Your task to perform on an android device: Search for hotels in NYC Image 0: 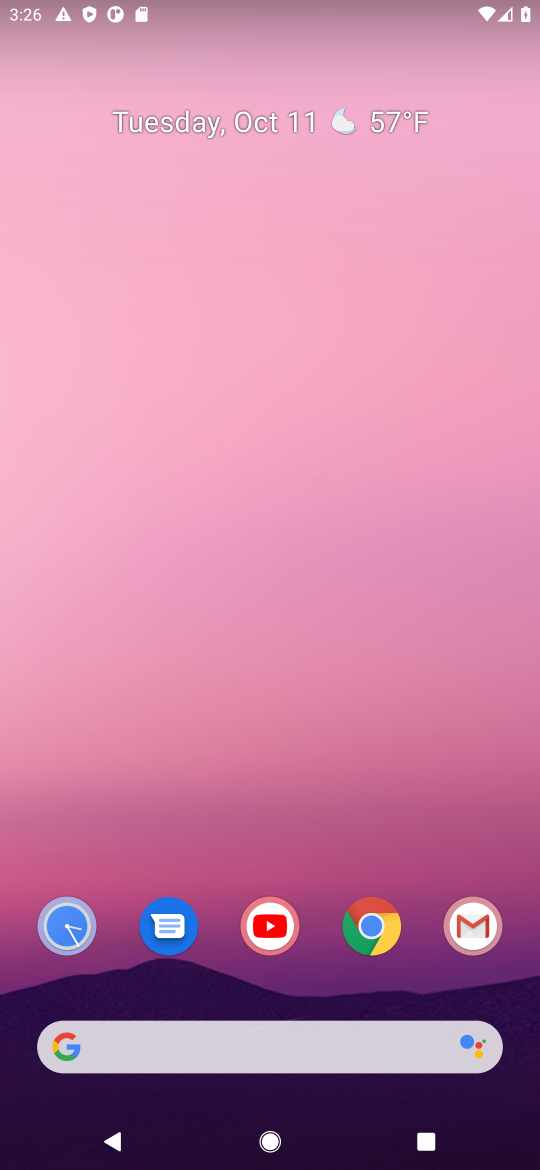
Step 0: click (254, 1029)
Your task to perform on an android device: Search for hotels in NYC Image 1: 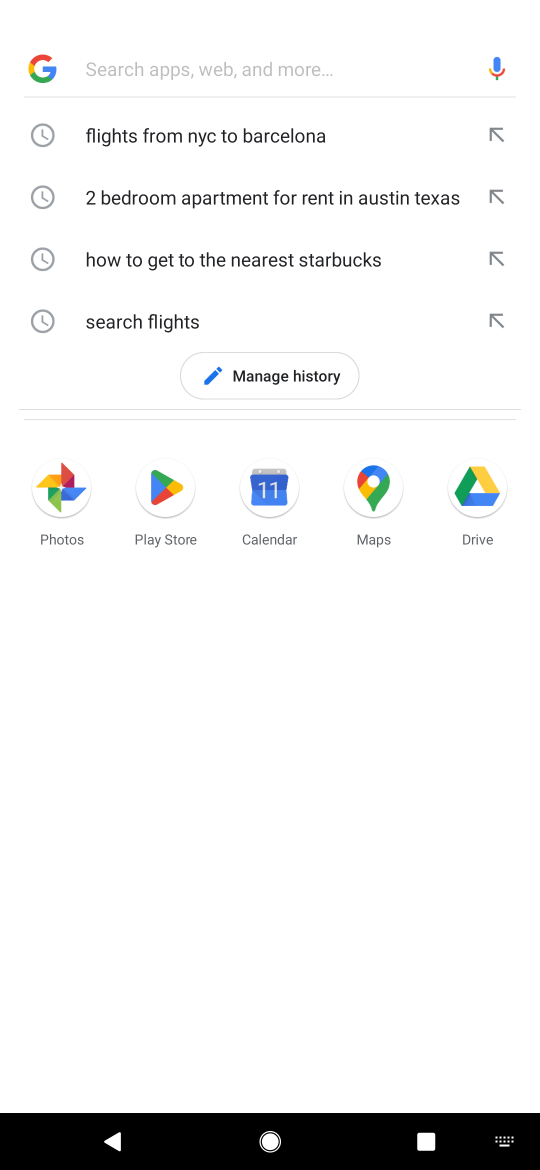
Step 1: type "hotels in NYC"
Your task to perform on an android device: Search for hotels in NYC Image 2: 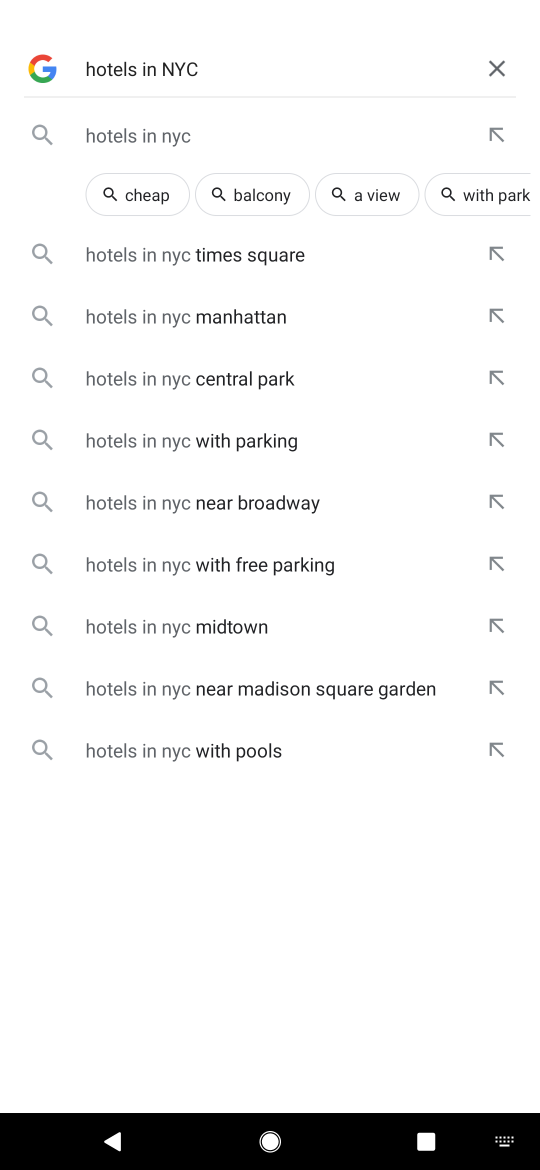
Step 2: type ""
Your task to perform on an android device: Search for hotels in NYC Image 3: 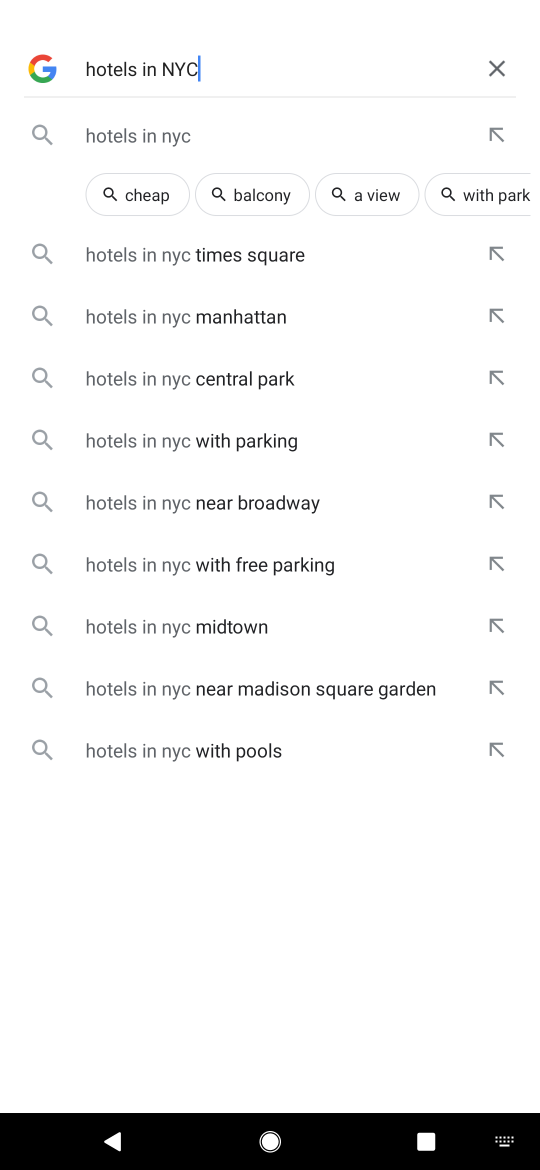
Step 3: click (181, 138)
Your task to perform on an android device: Search for hotels in NYC Image 4: 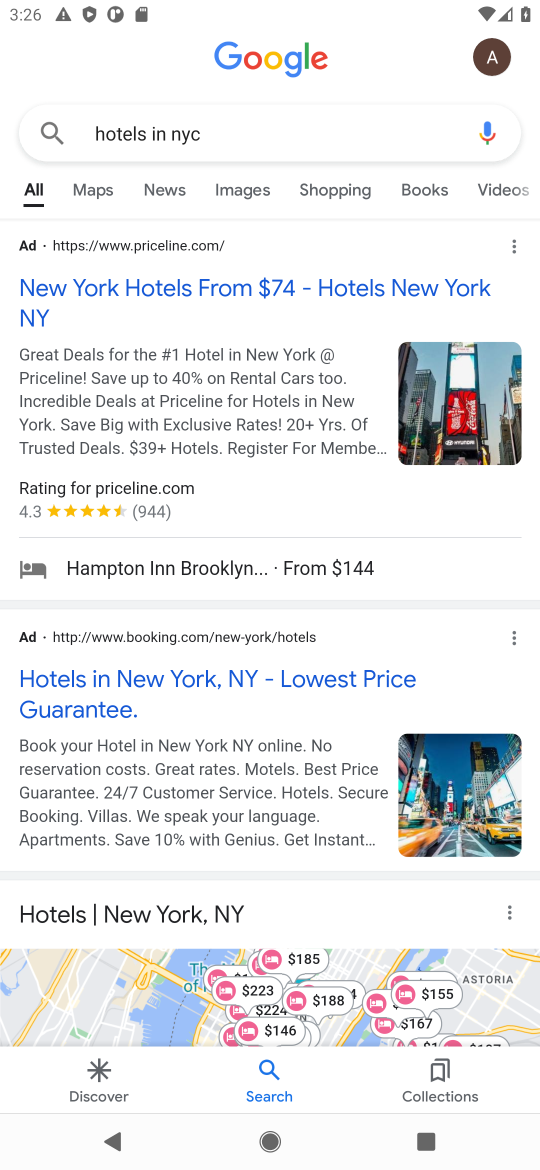
Step 4: drag from (138, 832) to (186, 229)
Your task to perform on an android device: Search for hotels in NYC Image 5: 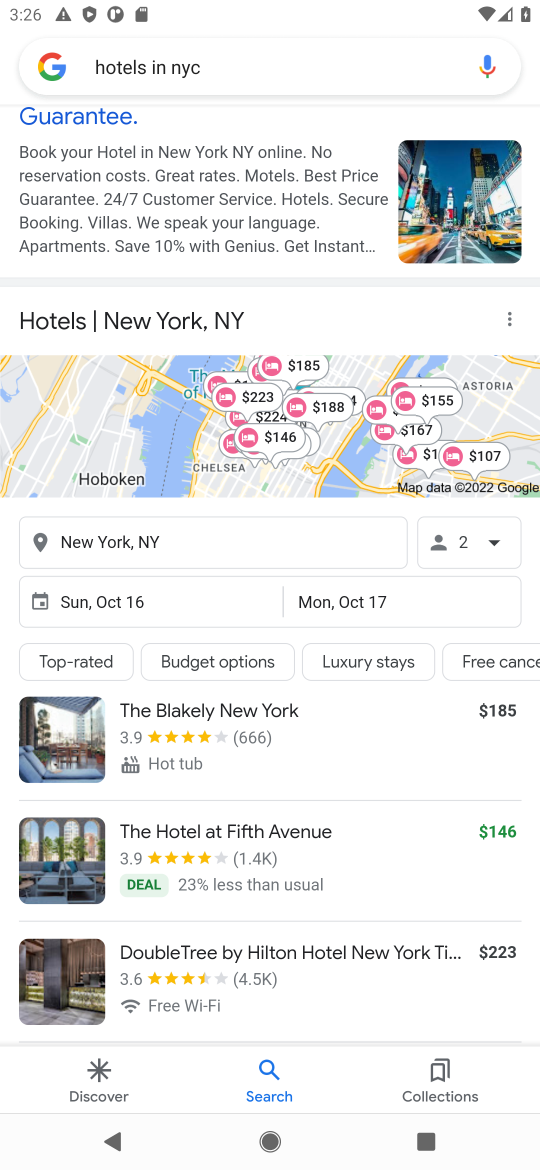
Step 5: drag from (201, 787) to (169, 166)
Your task to perform on an android device: Search for hotels in NYC Image 6: 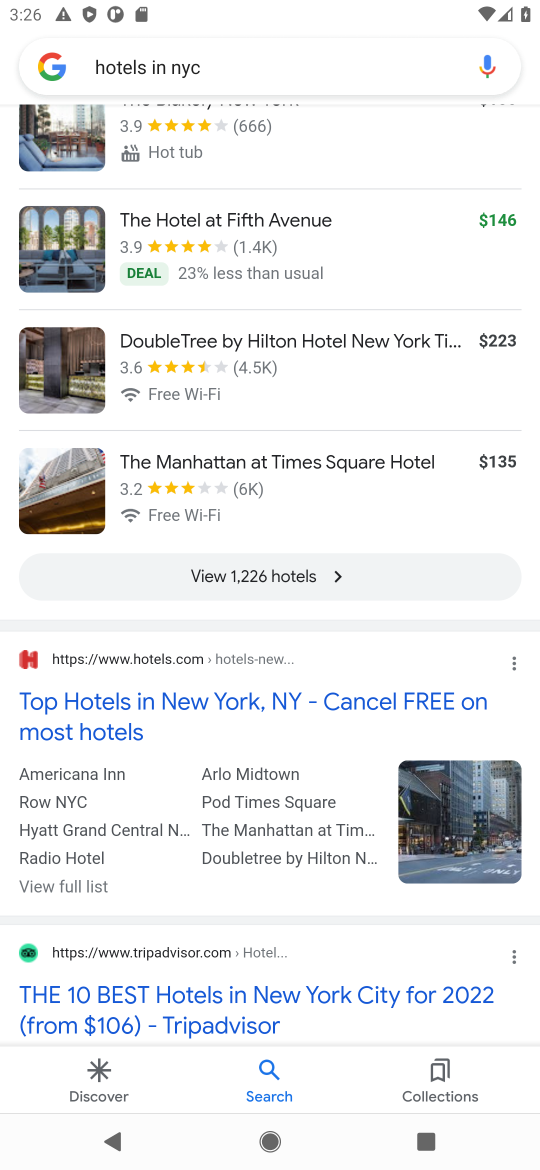
Step 6: click (213, 714)
Your task to perform on an android device: Search for hotels in NYC Image 7: 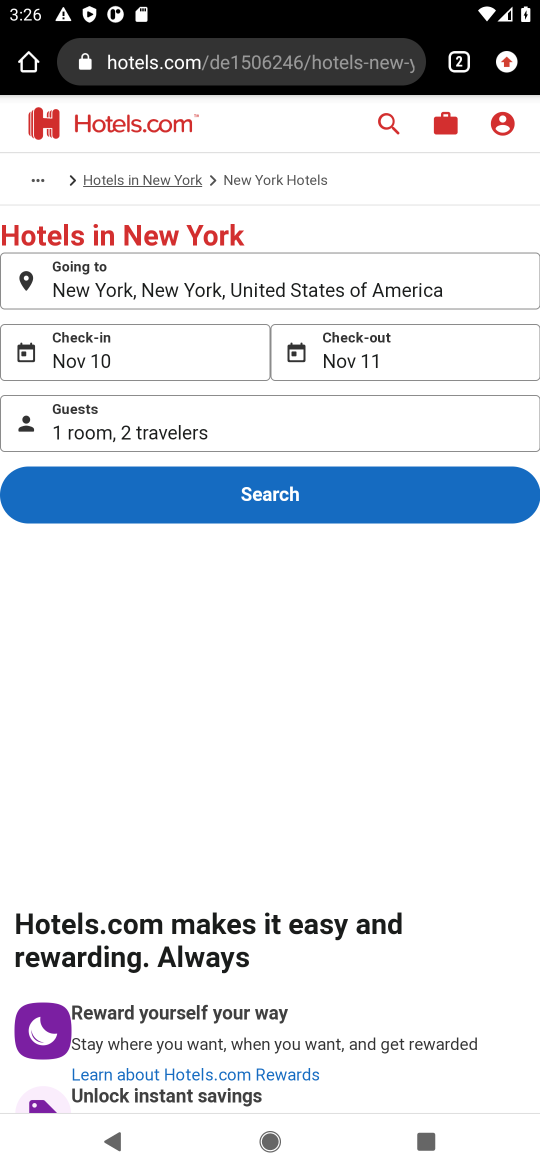
Step 7: task complete